Your task to perform on an android device: set the stopwatch Image 0: 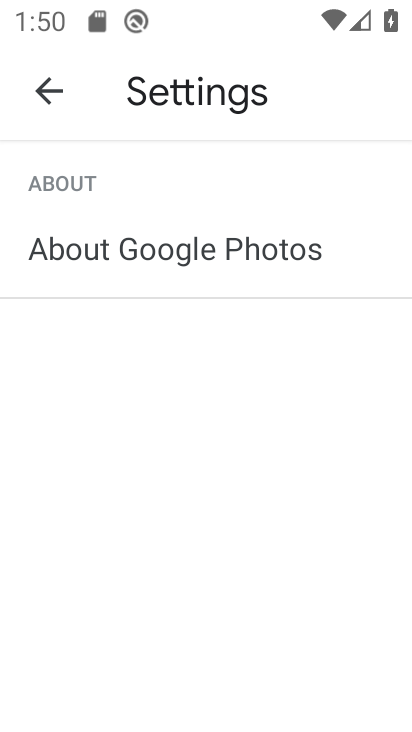
Step 0: press home button
Your task to perform on an android device: set the stopwatch Image 1: 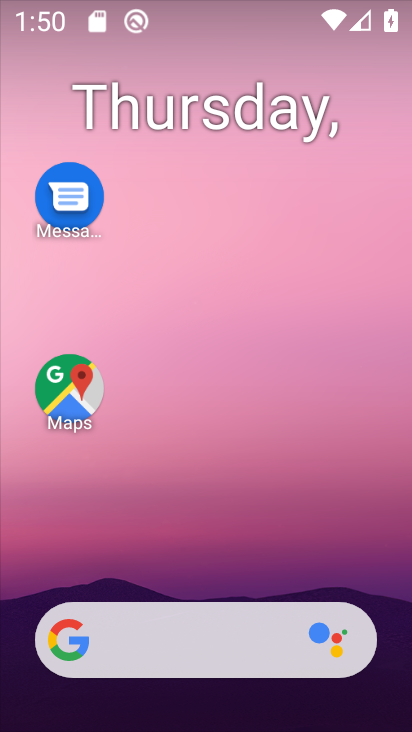
Step 1: drag from (190, 476) to (179, 74)
Your task to perform on an android device: set the stopwatch Image 2: 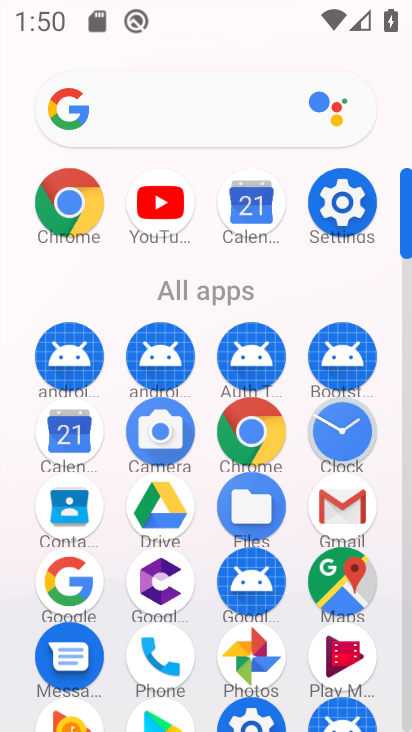
Step 2: click (347, 440)
Your task to perform on an android device: set the stopwatch Image 3: 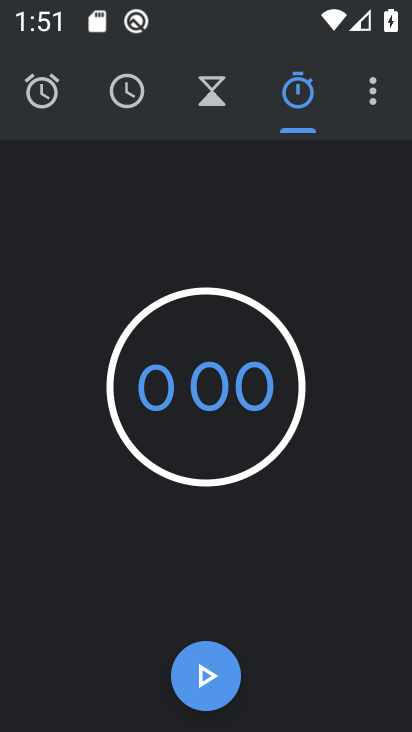
Step 3: click (181, 410)
Your task to perform on an android device: set the stopwatch Image 4: 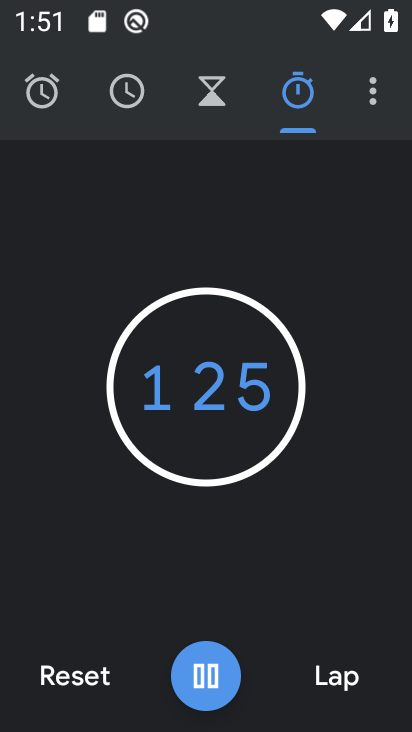
Step 4: task complete